Your task to perform on an android device: turn off notifications settings in the gmail app Image 0: 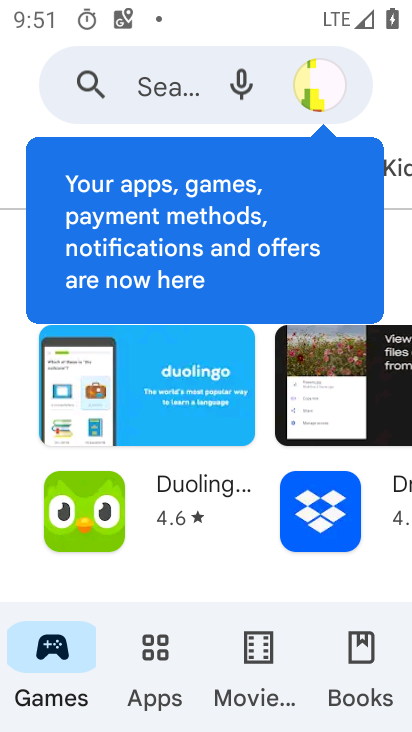
Step 0: press back button
Your task to perform on an android device: turn off notifications settings in the gmail app Image 1: 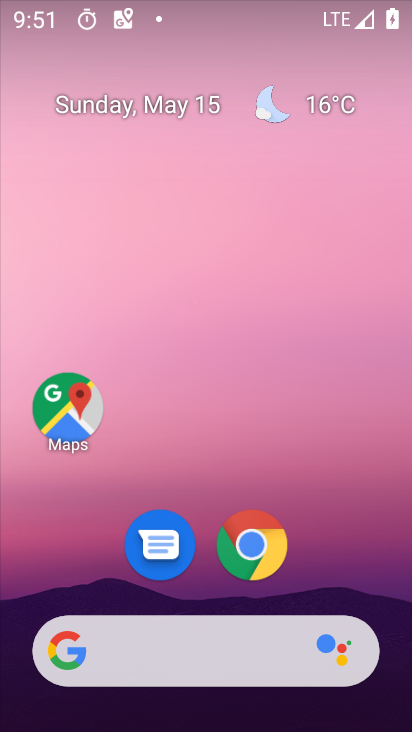
Step 1: drag from (326, 565) to (262, 130)
Your task to perform on an android device: turn off notifications settings in the gmail app Image 2: 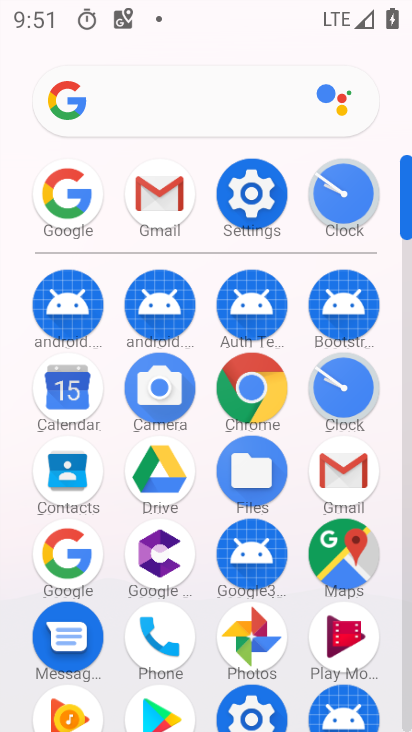
Step 2: click (155, 195)
Your task to perform on an android device: turn off notifications settings in the gmail app Image 3: 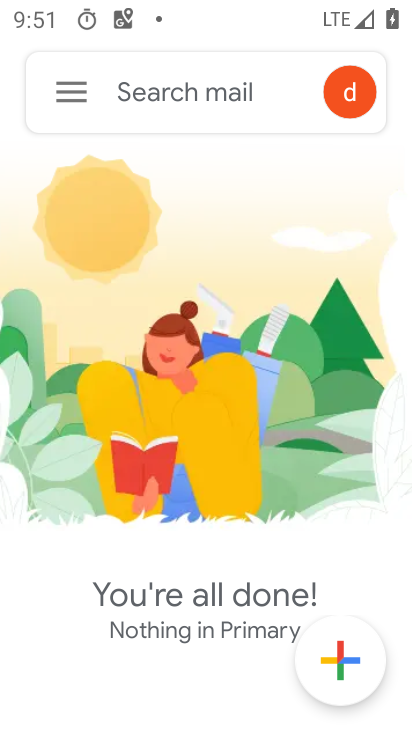
Step 3: click (73, 92)
Your task to perform on an android device: turn off notifications settings in the gmail app Image 4: 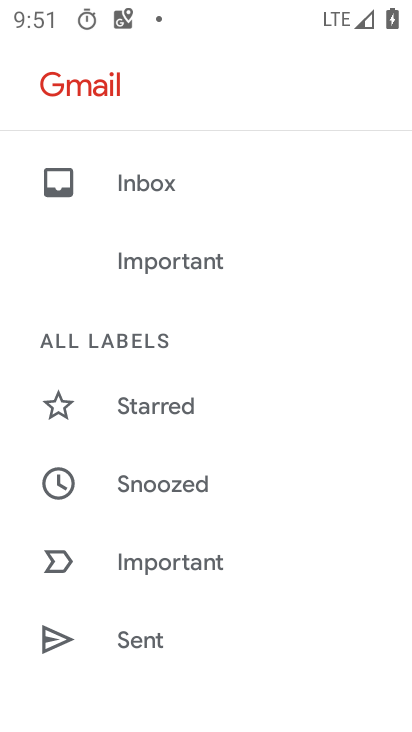
Step 4: drag from (157, 458) to (182, 356)
Your task to perform on an android device: turn off notifications settings in the gmail app Image 5: 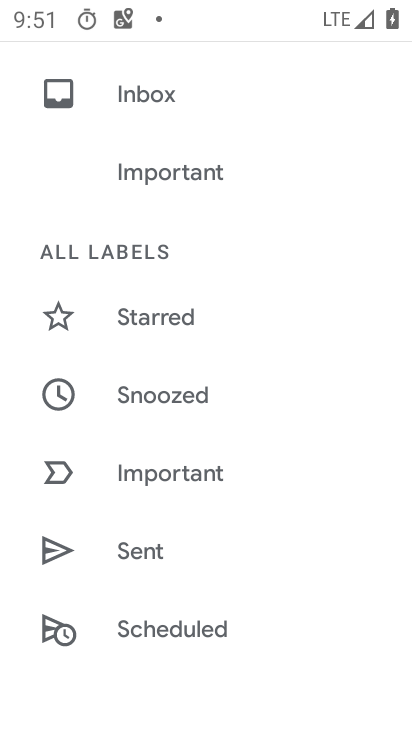
Step 5: drag from (138, 445) to (171, 352)
Your task to perform on an android device: turn off notifications settings in the gmail app Image 6: 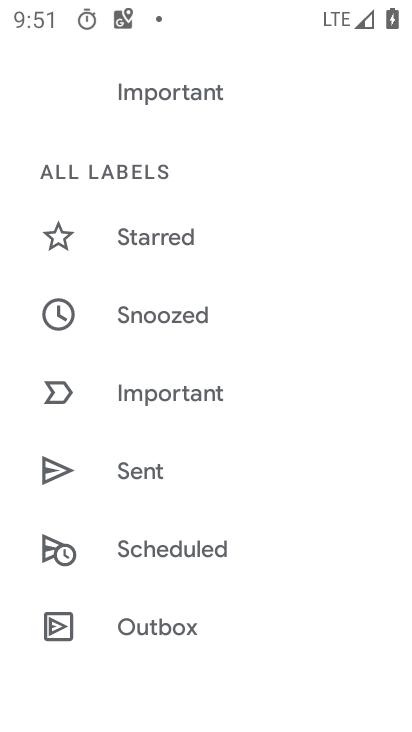
Step 6: drag from (134, 428) to (167, 328)
Your task to perform on an android device: turn off notifications settings in the gmail app Image 7: 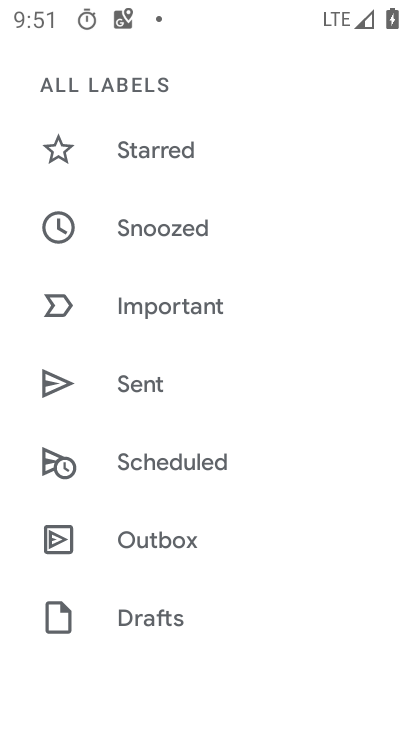
Step 7: drag from (132, 574) to (173, 477)
Your task to perform on an android device: turn off notifications settings in the gmail app Image 8: 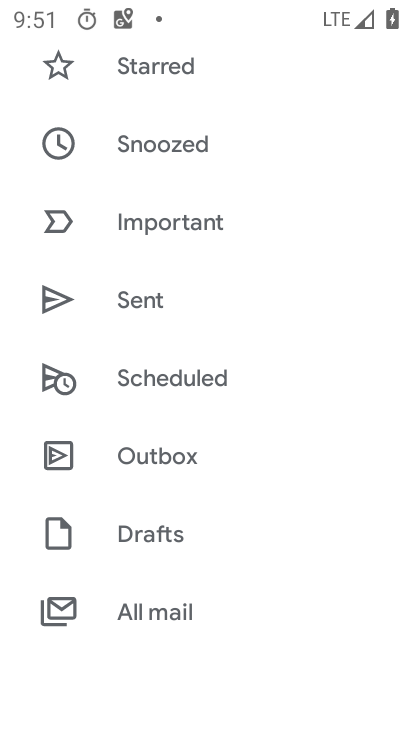
Step 8: drag from (162, 580) to (211, 444)
Your task to perform on an android device: turn off notifications settings in the gmail app Image 9: 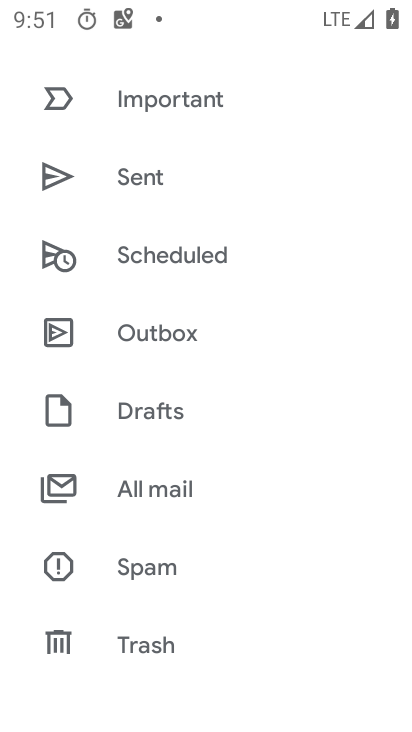
Step 9: drag from (133, 544) to (172, 427)
Your task to perform on an android device: turn off notifications settings in the gmail app Image 10: 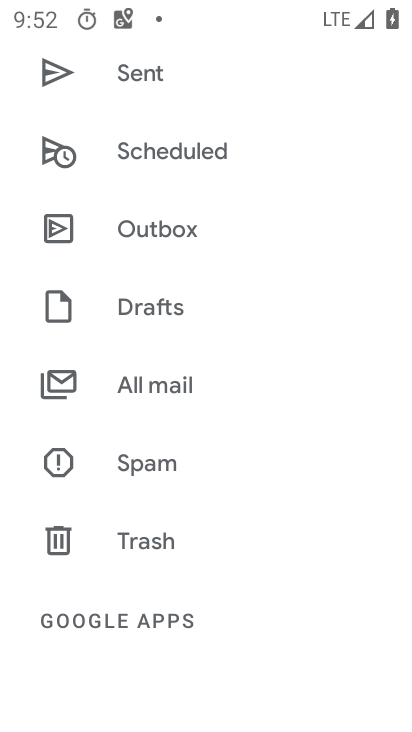
Step 10: drag from (137, 524) to (203, 397)
Your task to perform on an android device: turn off notifications settings in the gmail app Image 11: 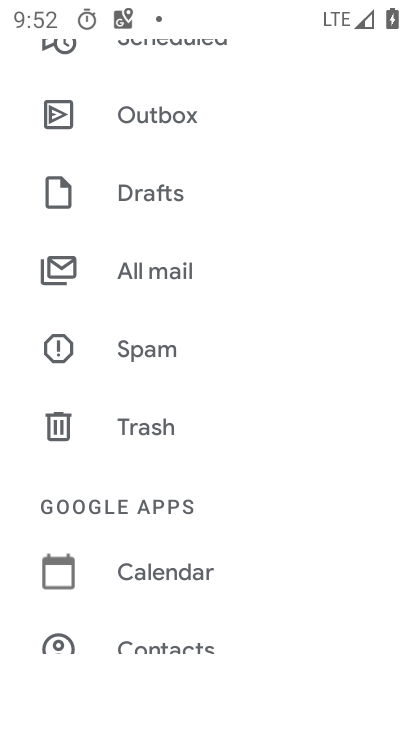
Step 11: drag from (140, 541) to (218, 426)
Your task to perform on an android device: turn off notifications settings in the gmail app Image 12: 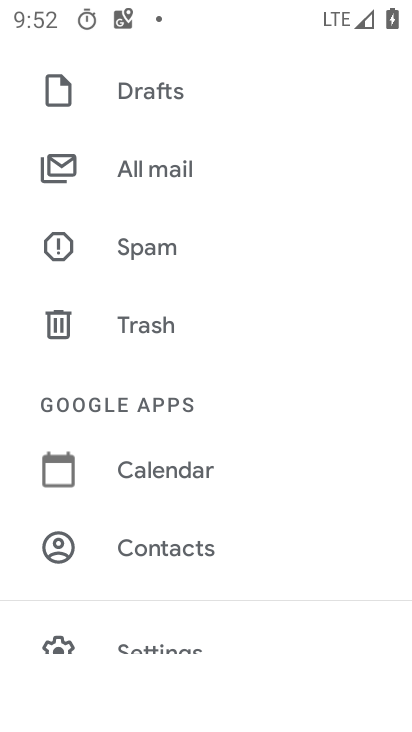
Step 12: drag from (165, 520) to (245, 388)
Your task to perform on an android device: turn off notifications settings in the gmail app Image 13: 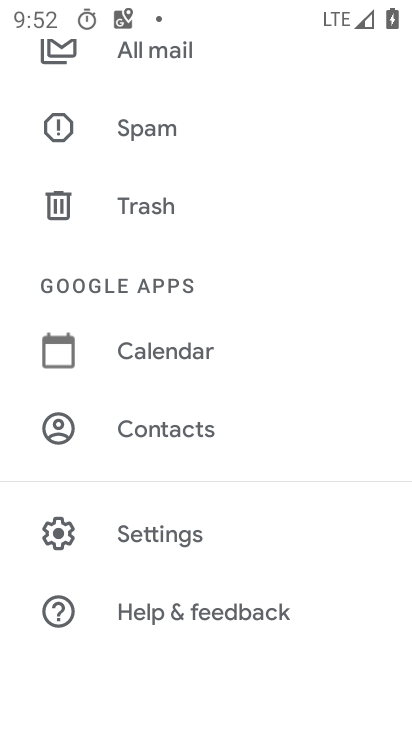
Step 13: click (163, 536)
Your task to perform on an android device: turn off notifications settings in the gmail app Image 14: 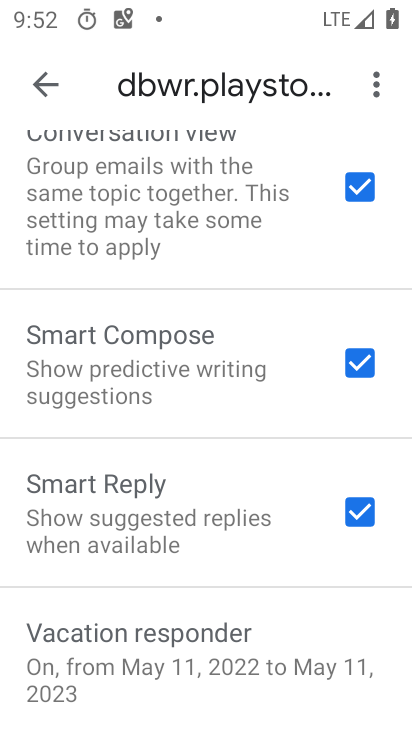
Step 14: drag from (213, 261) to (205, 406)
Your task to perform on an android device: turn off notifications settings in the gmail app Image 15: 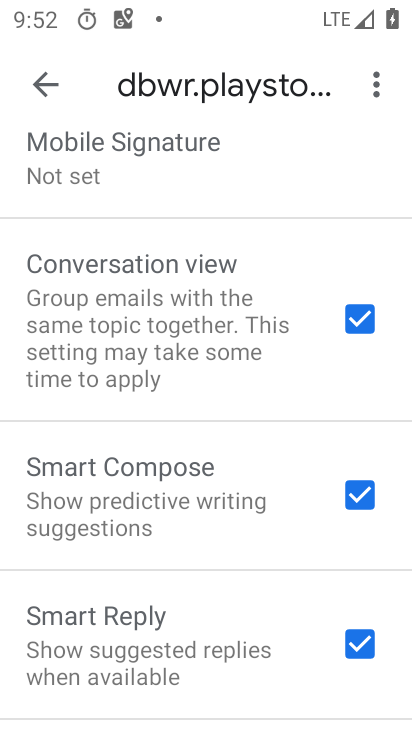
Step 15: drag from (208, 187) to (227, 390)
Your task to perform on an android device: turn off notifications settings in the gmail app Image 16: 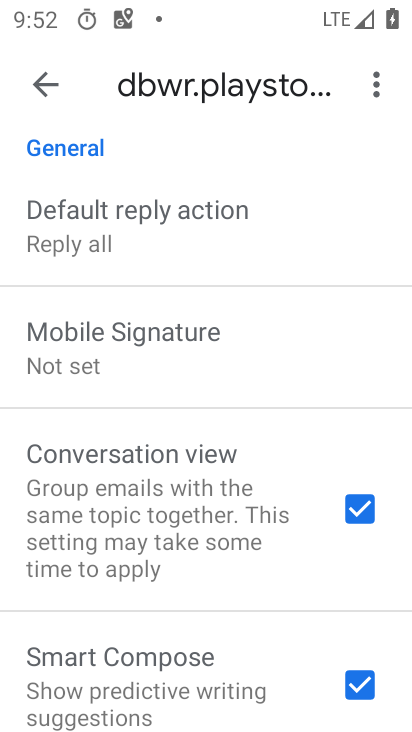
Step 16: drag from (187, 244) to (228, 379)
Your task to perform on an android device: turn off notifications settings in the gmail app Image 17: 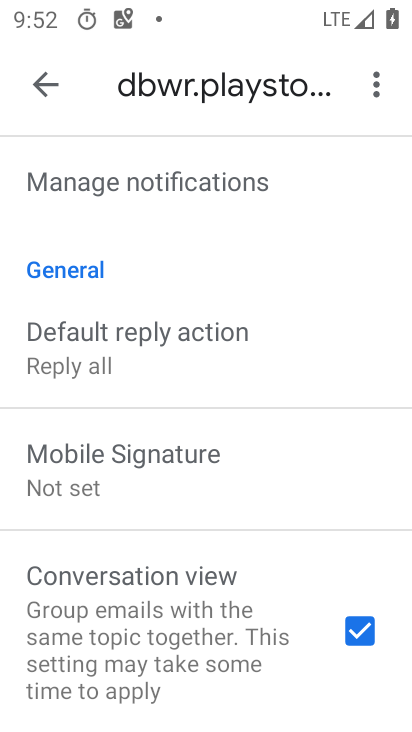
Step 17: click (176, 181)
Your task to perform on an android device: turn off notifications settings in the gmail app Image 18: 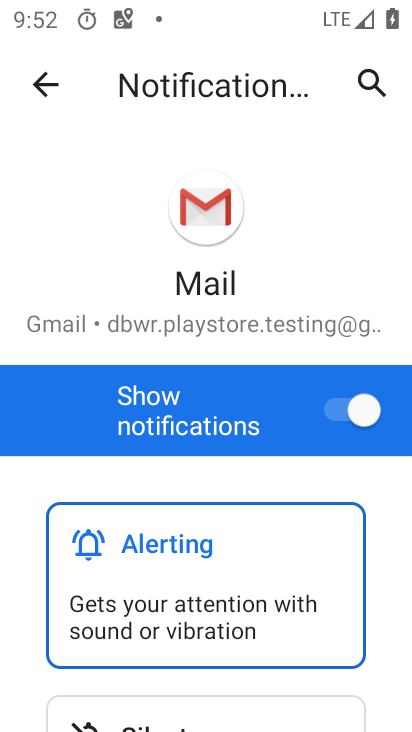
Step 18: click (357, 413)
Your task to perform on an android device: turn off notifications settings in the gmail app Image 19: 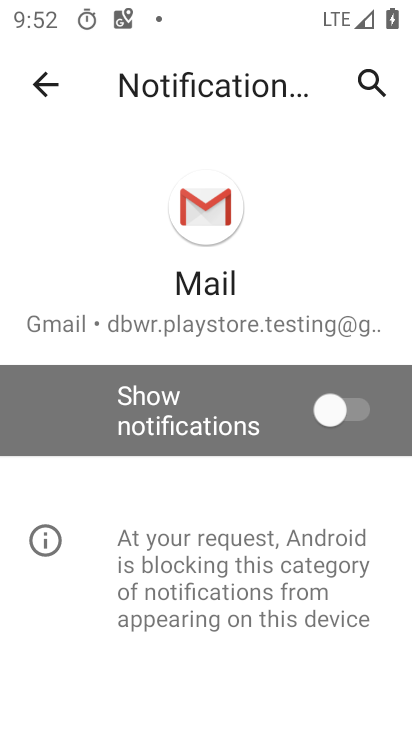
Step 19: task complete